Your task to perform on an android device: Go to wifi settings Image 0: 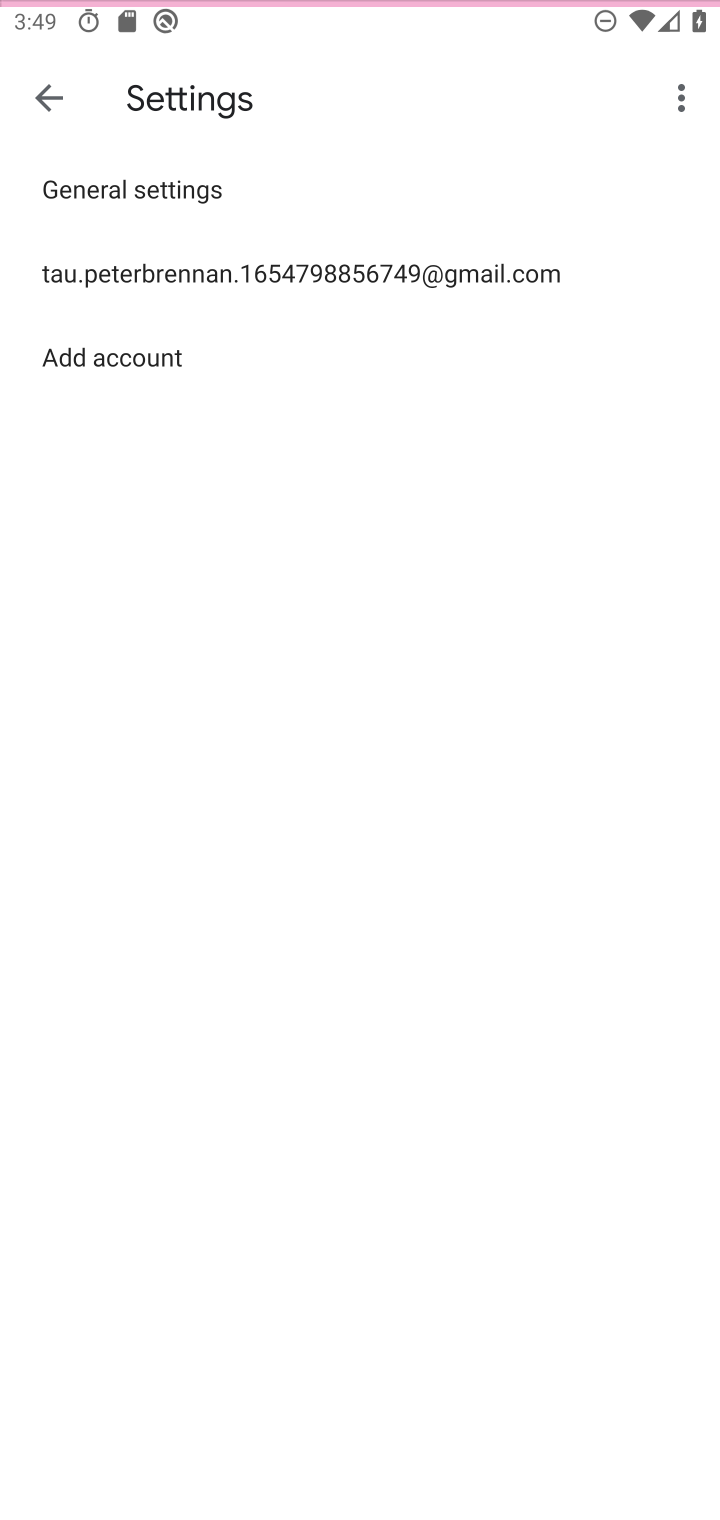
Step 0: press back button
Your task to perform on an android device: Go to wifi settings Image 1: 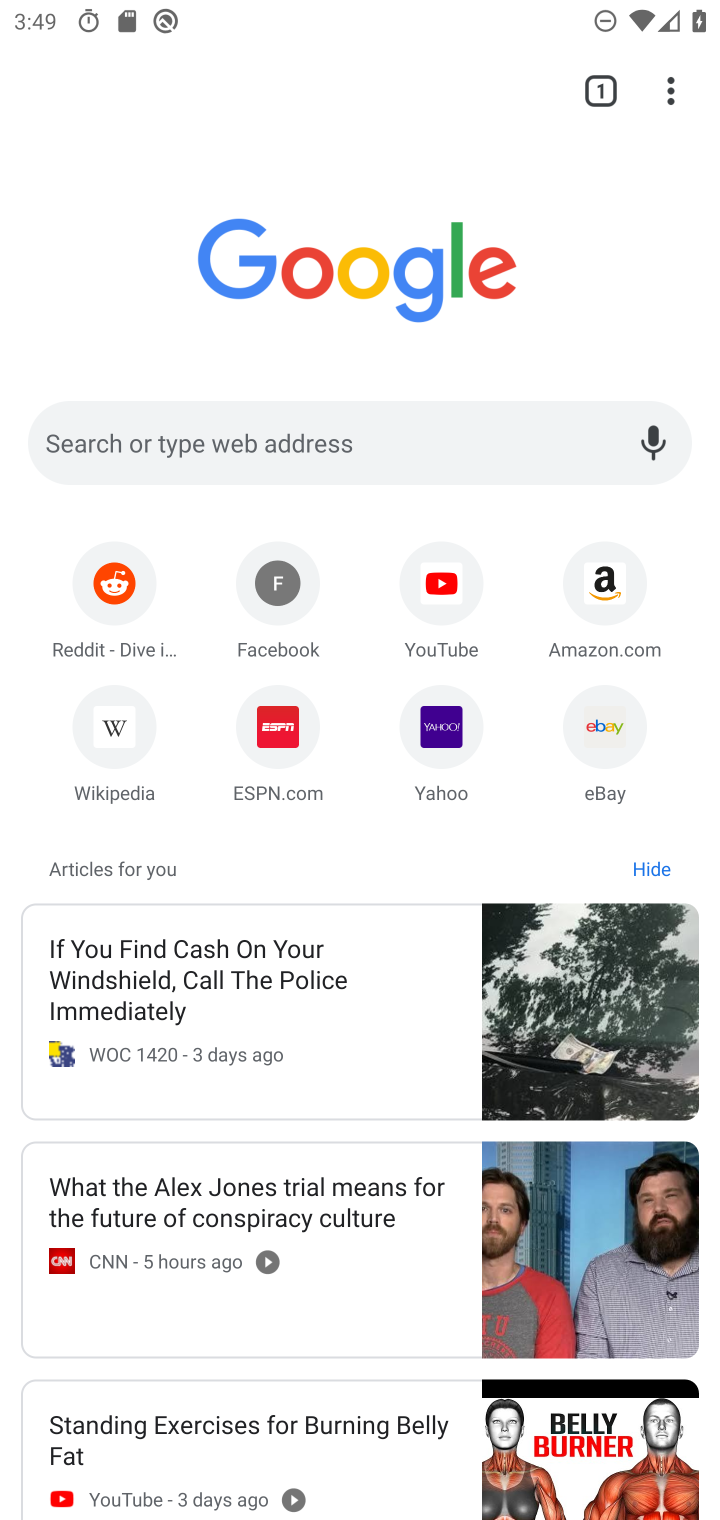
Step 1: press back button
Your task to perform on an android device: Go to wifi settings Image 2: 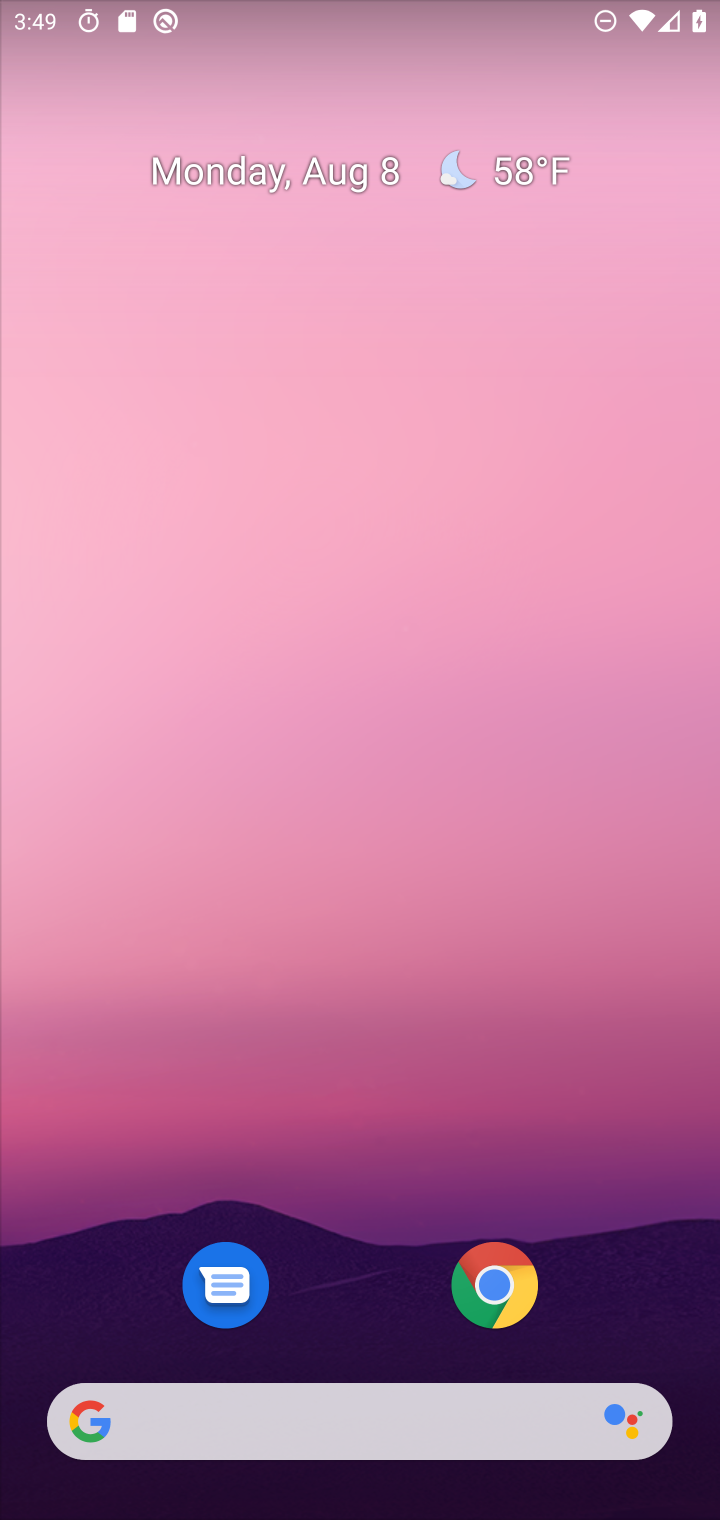
Step 2: press back button
Your task to perform on an android device: Go to wifi settings Image 3: 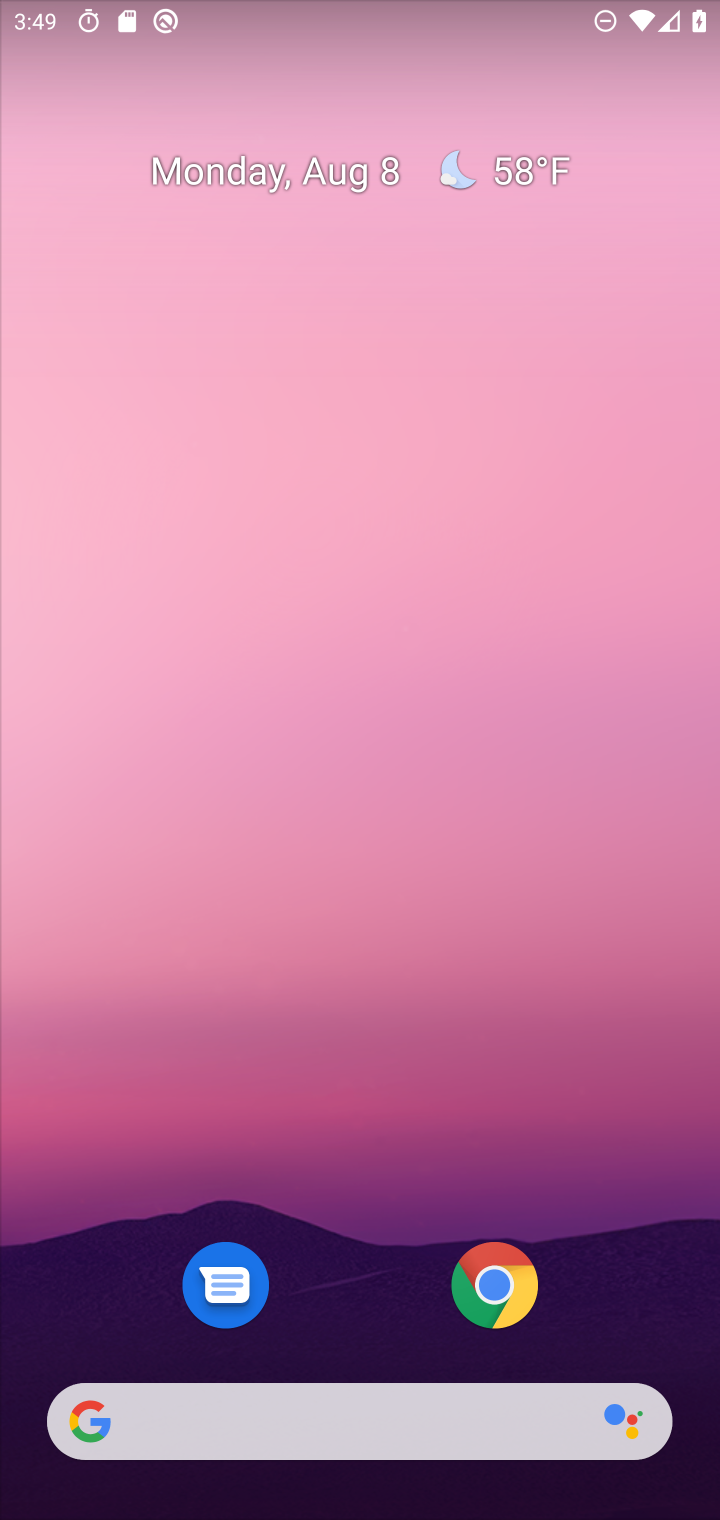
Step 3: drag from (188, 88) to (343, 1108)
Your task to perform on an android device: Go to wifi settings Image 4: 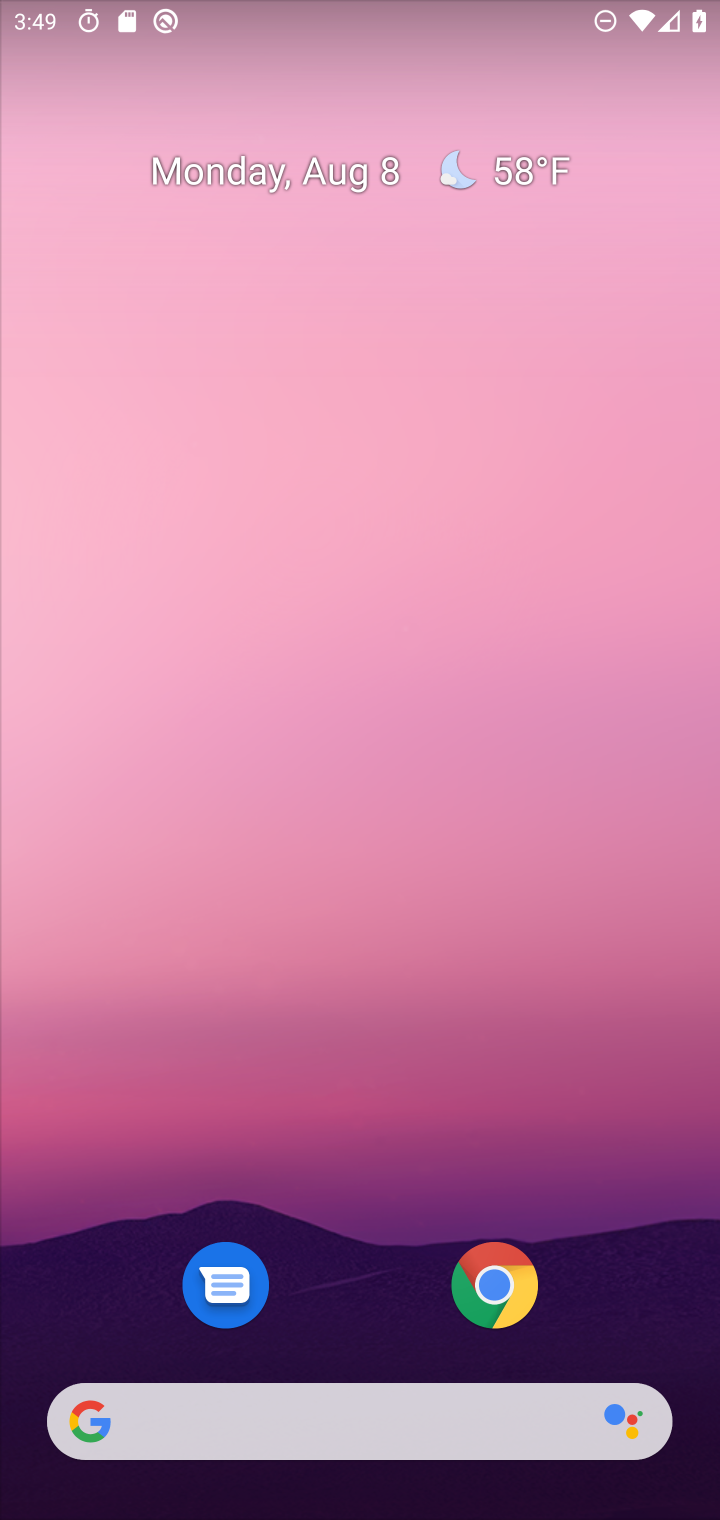
Step 4: drag from (145, 63) to (310, 1237)
Your task to perform on an android device: Go to wifi settings Image 5: 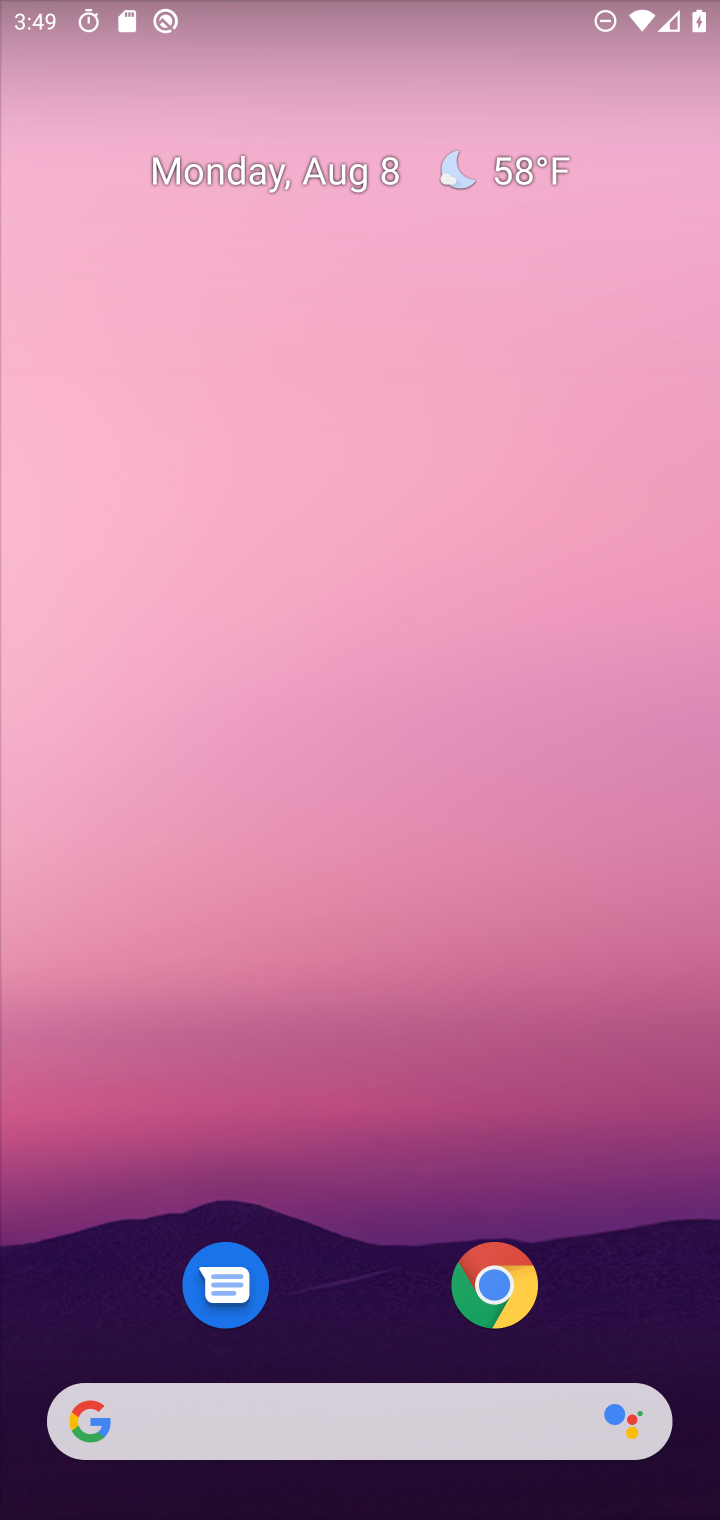
Step 5: drag from (615, 8) to (499, 913)
Your task to perform on an android device: Go to wifi settings Image 6: 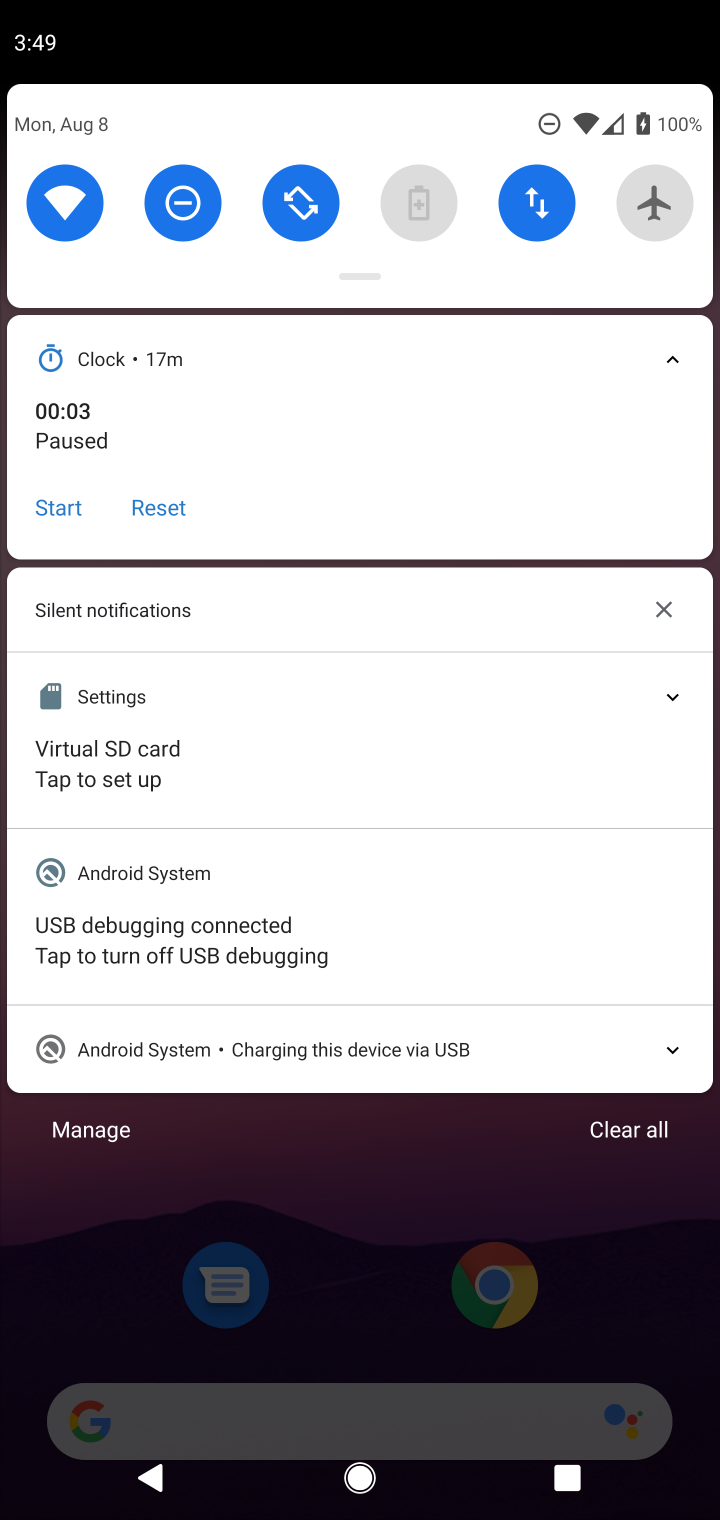
Step 6: click (73, 203)
Your task to perform on an android device: Go to wifi settings Image 7: 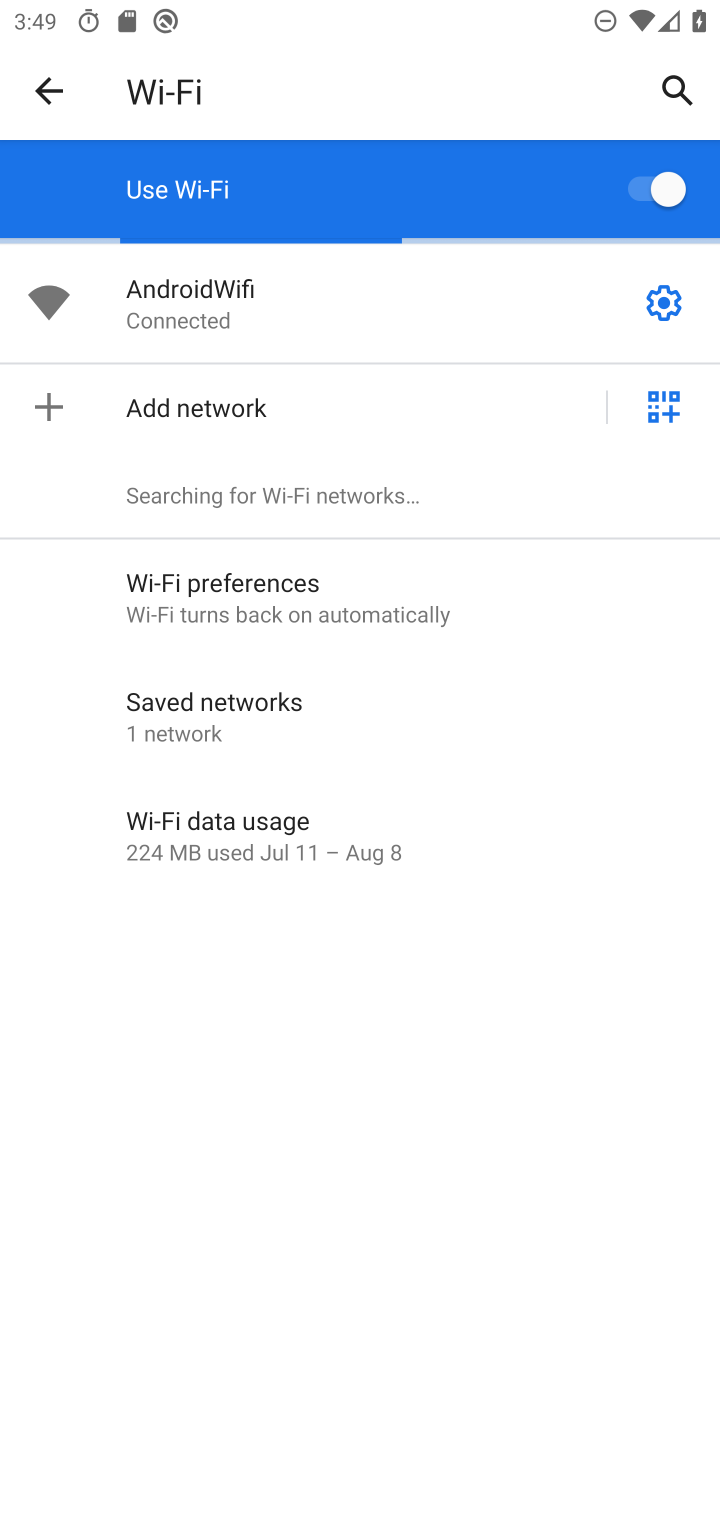
Step 7: task complete